Your task to perform on an android device: Search for vegetarian restaurants on Maps Image 0: 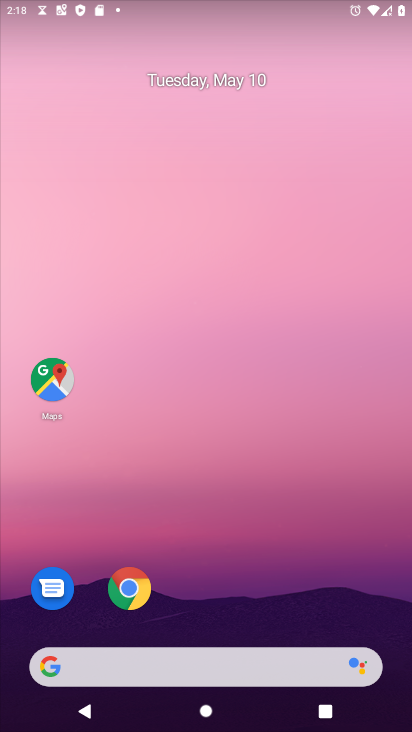
Step 0: drag from (263, 609) to (279, 336)
Your task to perform on an android device: Search for vegetarian restaurants on Maps Image 1: 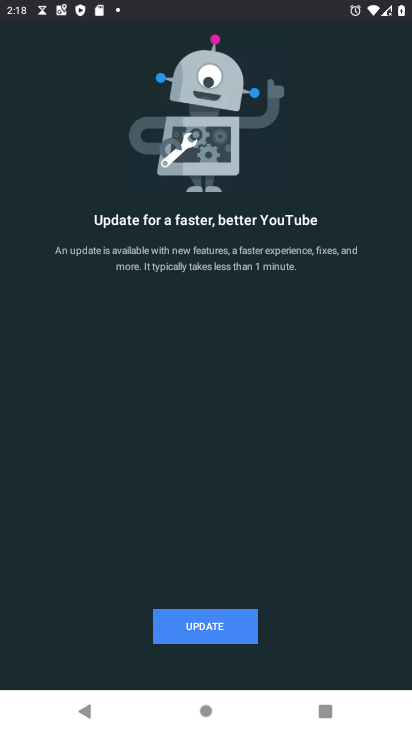
Step 1: press home button
Your task to perform on an android device: Search for vegetarian restaurants on Maps Image 2: 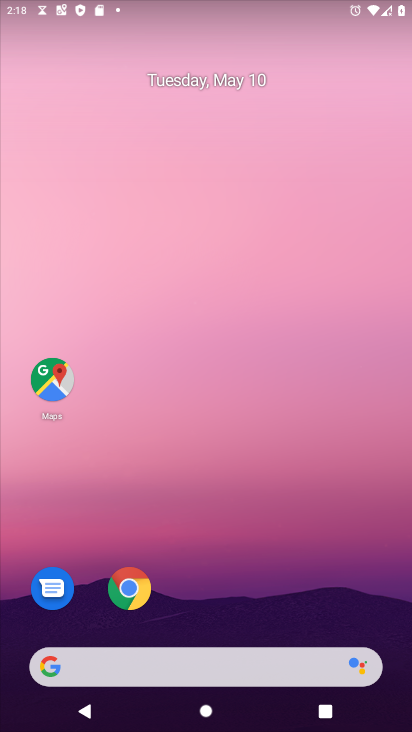
Step 2: click (48, 353)
Your task to perform on an android device: Search for vegetarian restaurants on Maps Image 3: 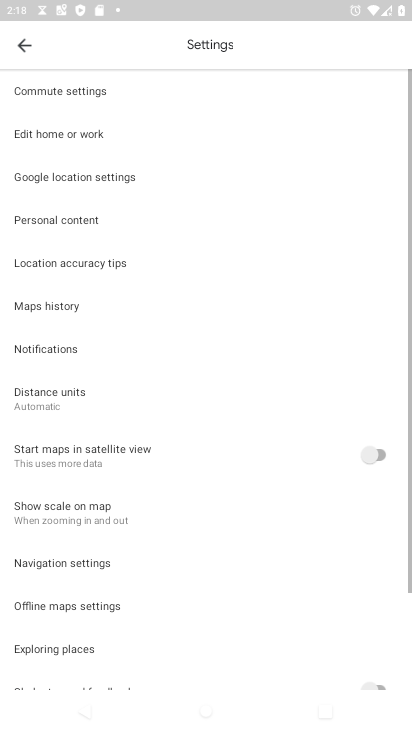
Step 3: click (22, 44)
Your task to perform on an android device: Search for vegetarian restaurants on Maps Image 4: 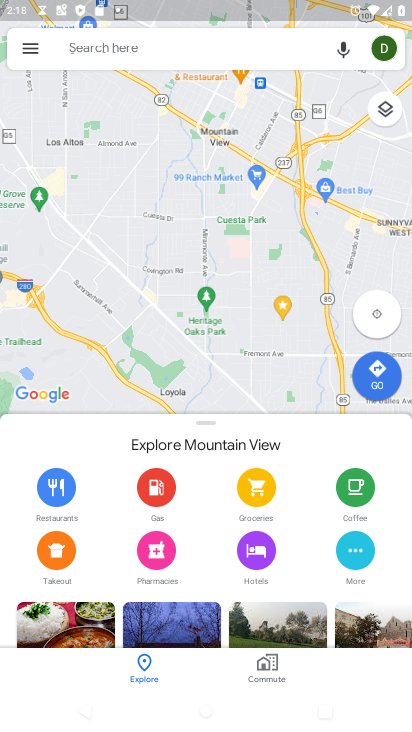
Step 4: click (152, 47)
Your task to perform on an android device: Search for vegetarian restaurants on Maps Image 5: 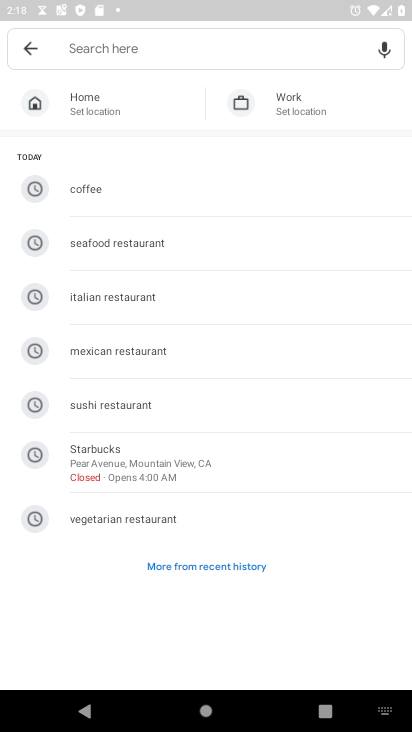
Step 5: click (156, 524)
Your task to perform on an android device: Search for vegetarian restaurants on Maps Image 6: 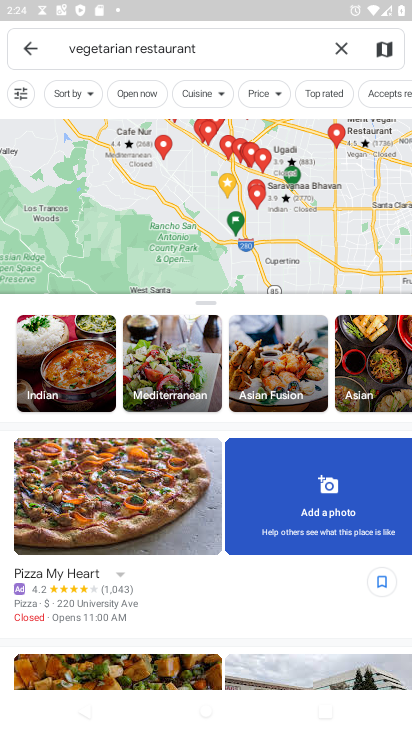
Step 6: task complete